Your task to perform on an android device: Go to internet settings Image 0: 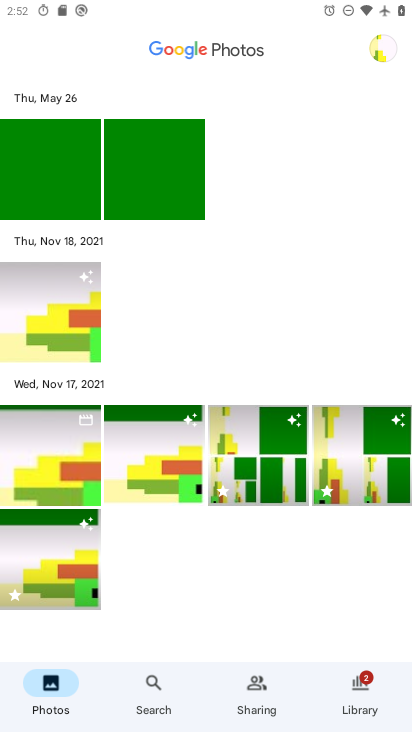
Step 0: press home button
Your task to perform on an android device: Go to internet settings Image 1: 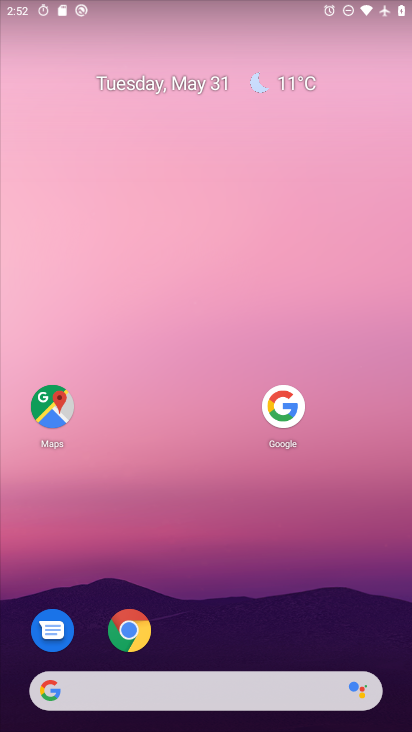
Step 1: drag from (127, 693) to (266, 135)
Your task to perform on an android device: Go to internet settings Image 2: 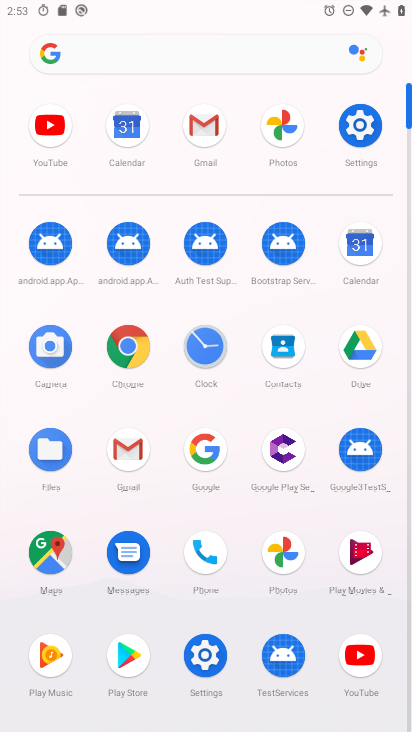
Step 2: click (358, 131)
Your task to perform on an android device: Go to internet settings Image 3: 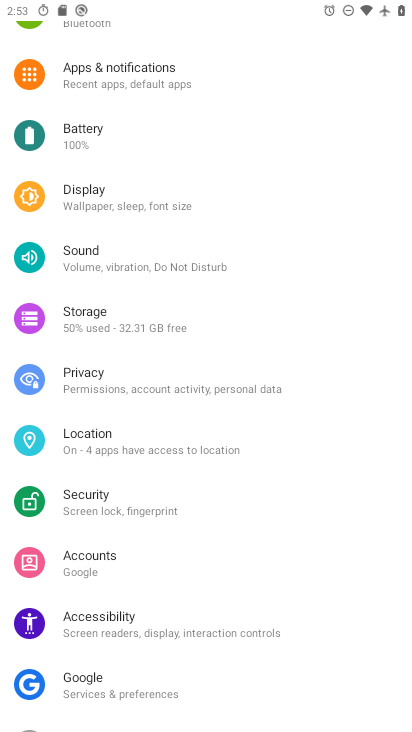
Step 3: drag from (256, 106) to (245, 554)
Your task to perform on an android device: Go to internet settings Image 4: 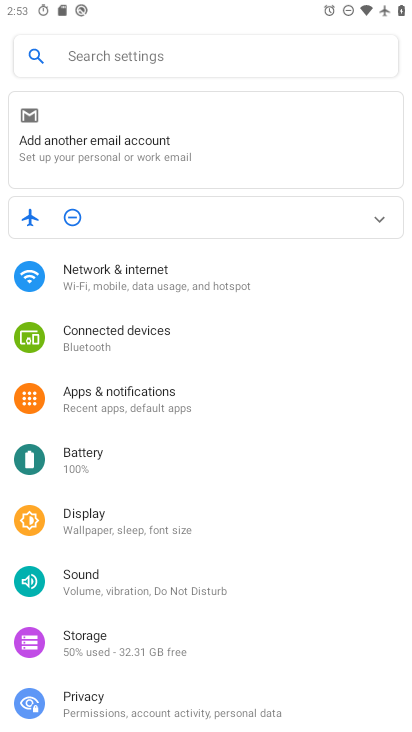
Step 4: click (157, 268)
Your task to perform on an android device: Go to internet settings Image 5: 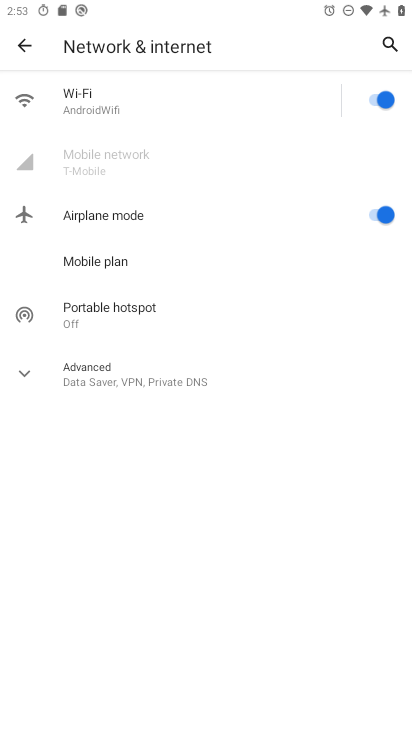
Step 5: task complete